Your task to perform on an android device: check data usage Image 0: 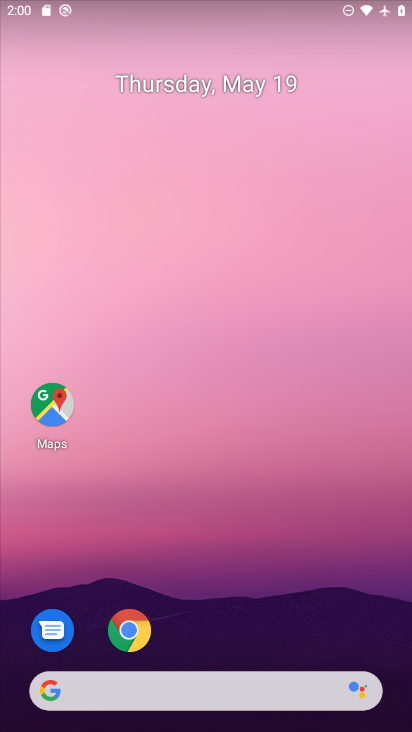
Step 0: drag from (230, 663) to (191, 175)
Your task to perform on an android device: check data usage Image 1: 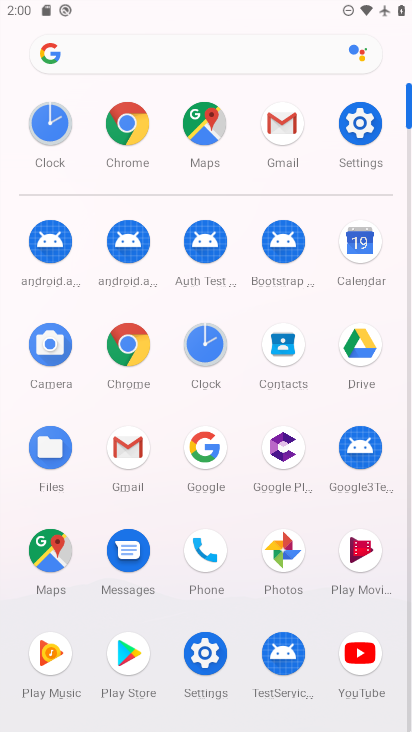
Step 1: click (352, 133)
Your task to perform on an android device: check data usage Image 2: 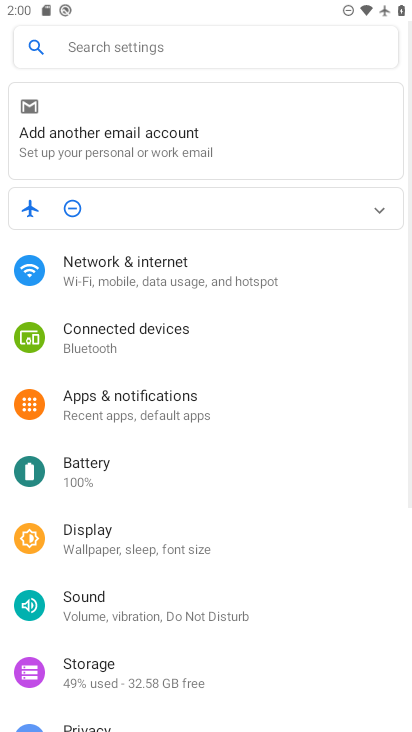
Step 2: click (69, 269)
Your task to perform on an android device: check data usage Image 3: 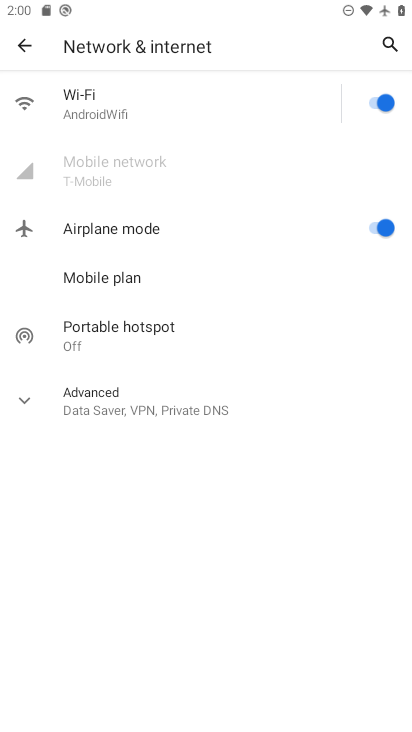
Step 3: task complete